Your task to perform on an android device: turn off improve location accuracy Image 0: 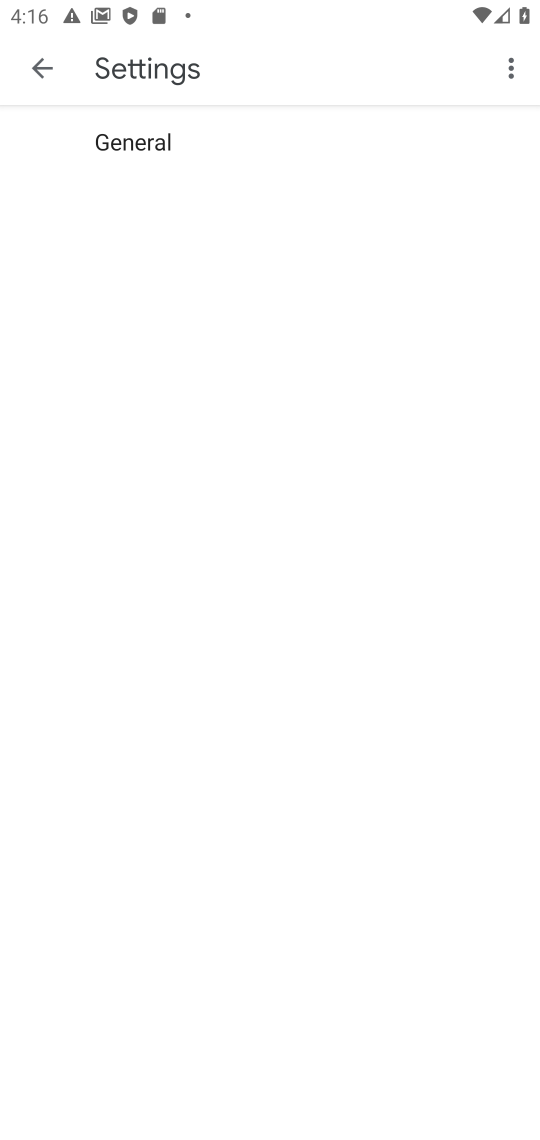
Step 0: press home button
Your task to perform on an android device: turn off improve location accuracy Image 1: 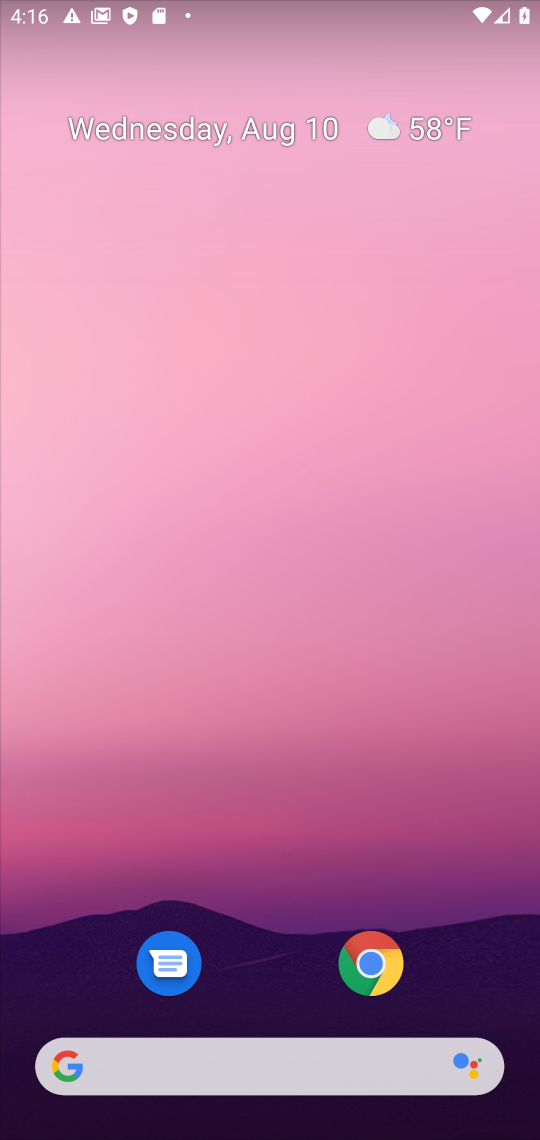
Step 1: drag from (248, 983) to (285, 172)
Your task to perform on an android device: turn off improve location accuracy Image 2: 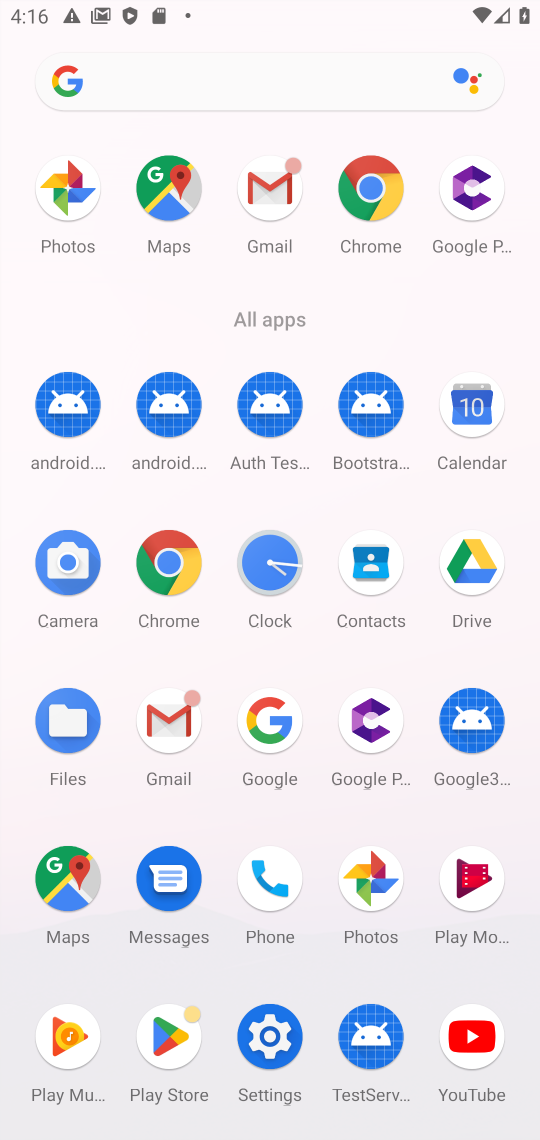
Step 2: click (257, 1035)
Your task to perform on an android device: turn off improve location accuracy Image 3: 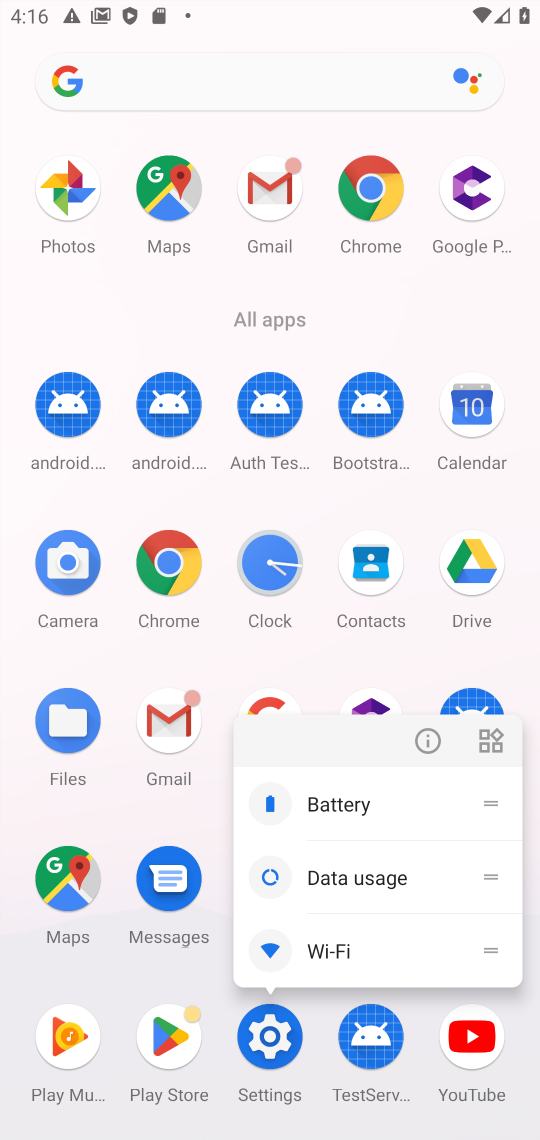
Step 3: click (264, 1034)
Your task to perform on an android device: turn off improve location accuracy Image 4: 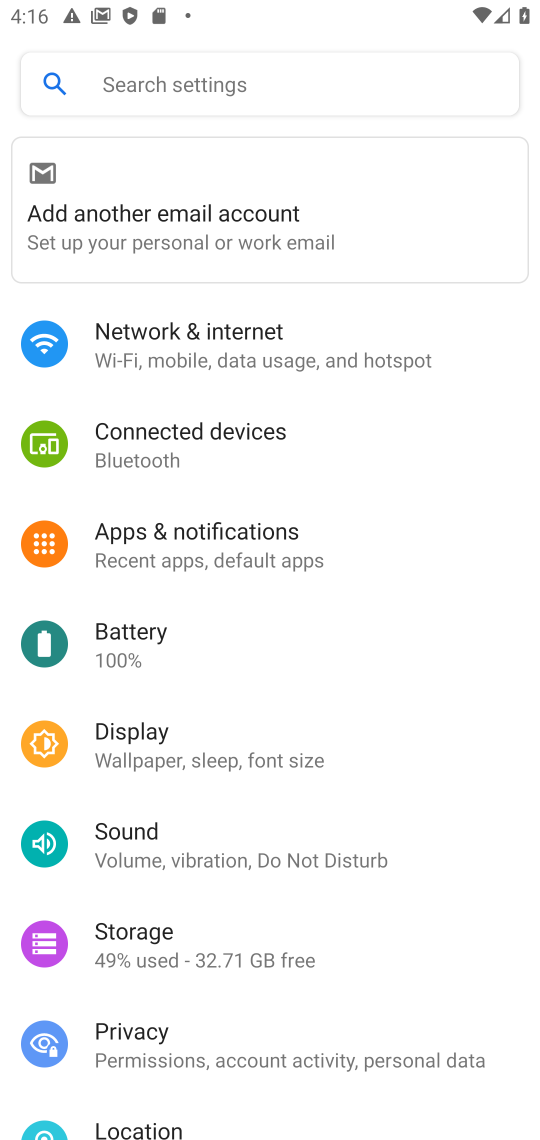
Step 4: drag from (244, 973) to (279, 372)
Your task to perform on an android device: turn off improve location accuracy Image 5: 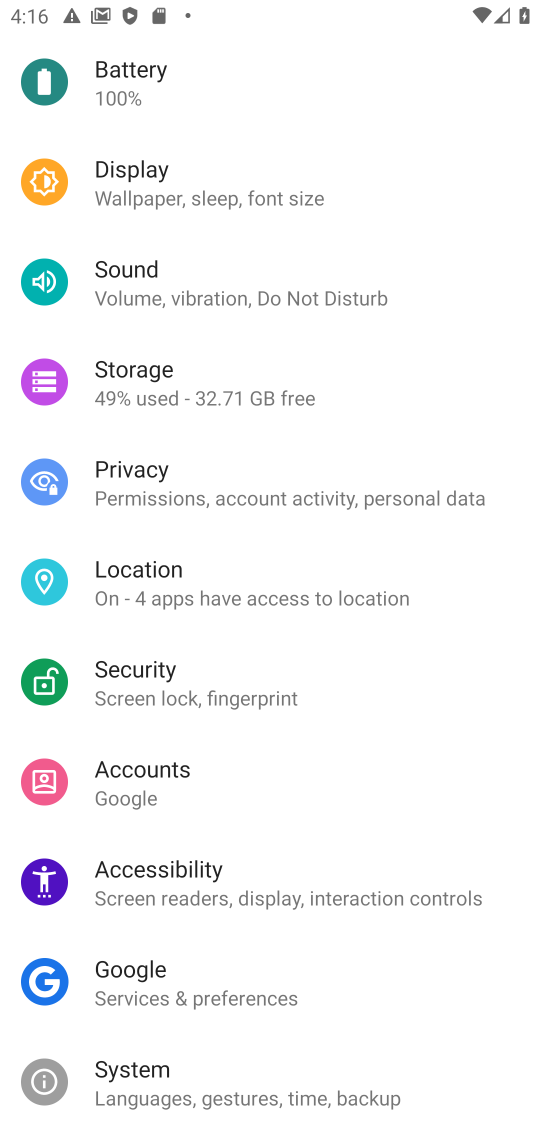
Step 5: click (146, 593)
Your task to perform on an android device: turn off improve location accuracy Image 6: 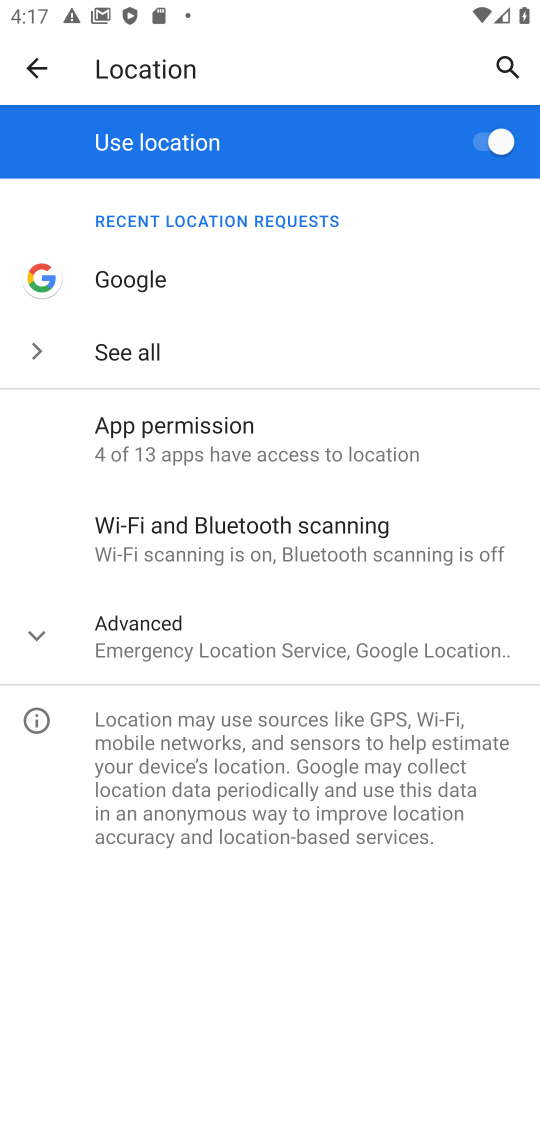
Step 6: click (275, 642)
Your task to perform on an android device: turn off improve location accuracy Image 7: 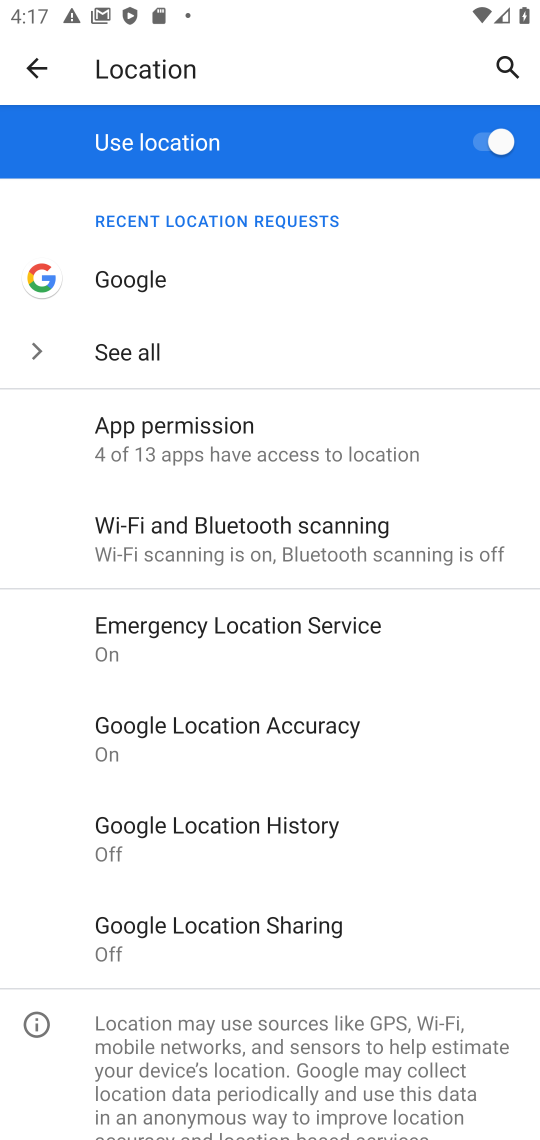
Step 7: click (256, 723)
Your task to perform on an android device: turn off improve location accuracy Image 8: 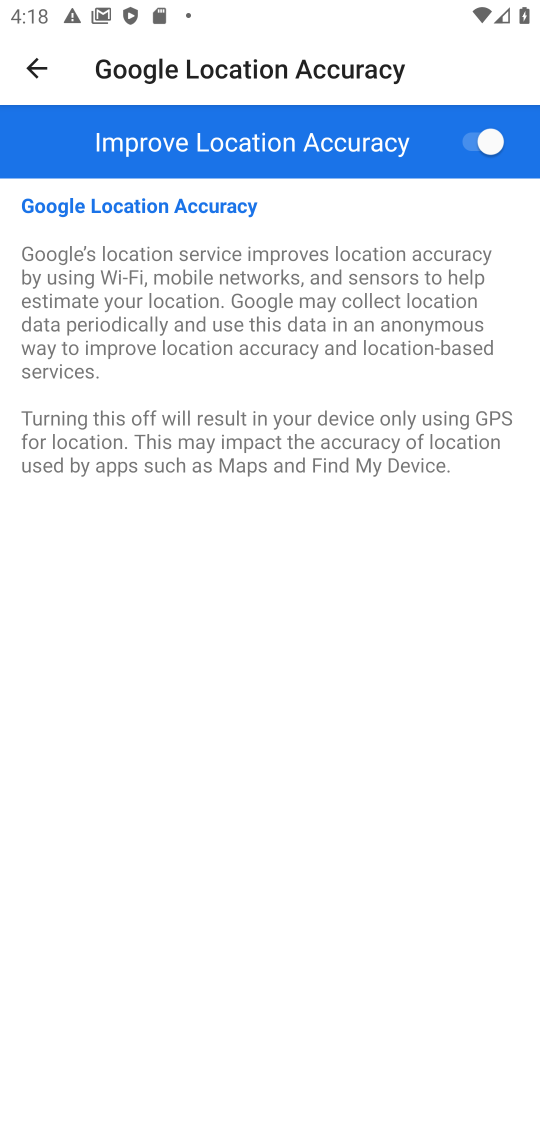
Step 8: click (297, 157)
Your task to perform on an android device: turn off improve location accuracy Image 9: 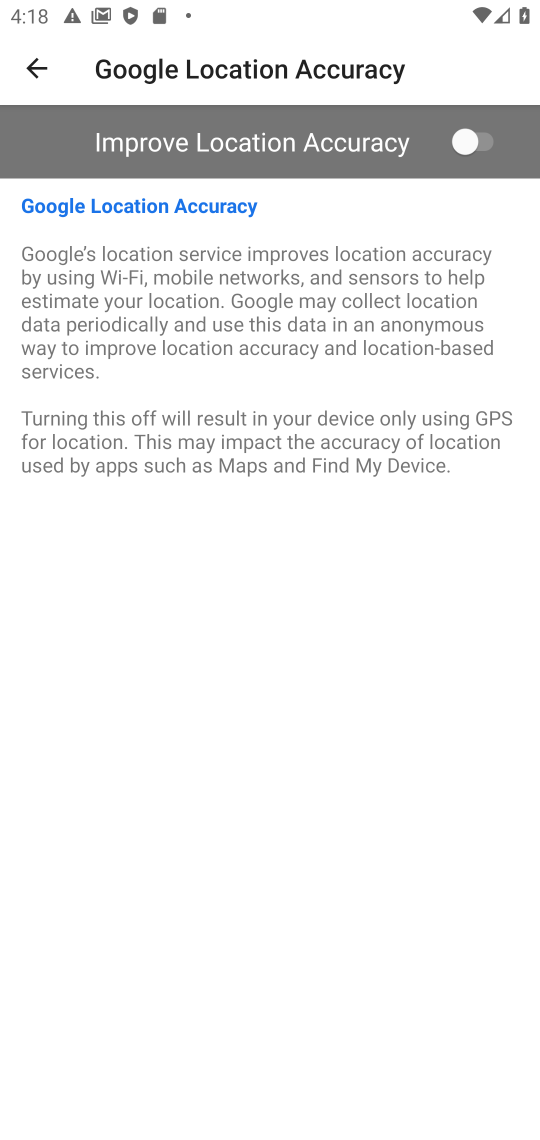
Step 9: task complete